Your task to perform on an android device: find which apps use the phone's location Image 0: 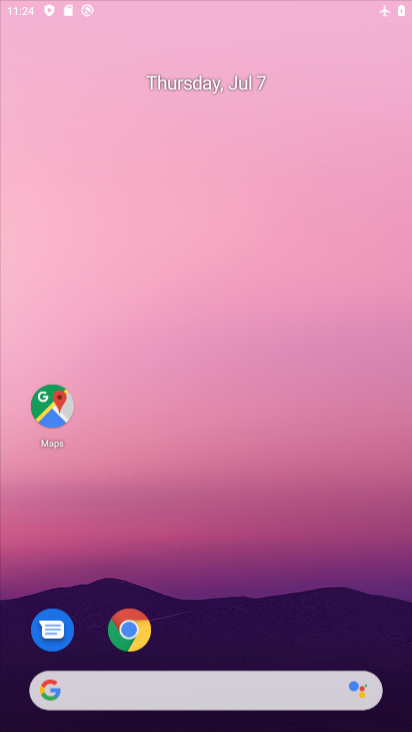
Step 0: click (171, 32)
Your task to perform on an android device: find which apps use the phone's location Image 1: 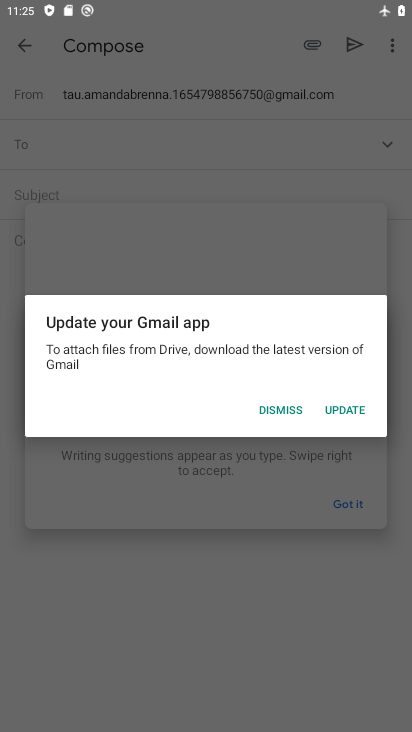
Step 1: press home button
Your task to perform on an android device: find which apps use the phone's location Image 2: 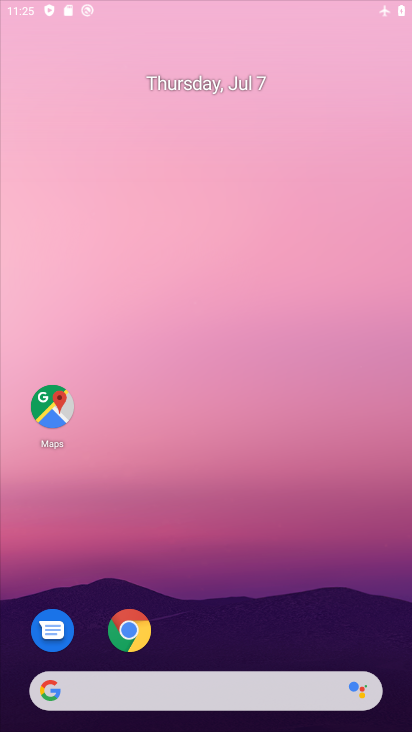
Step 2: drag from (368, 707) to (219, 44)
Your task to perform on an android device: find which apps use the phone's location Image 3: 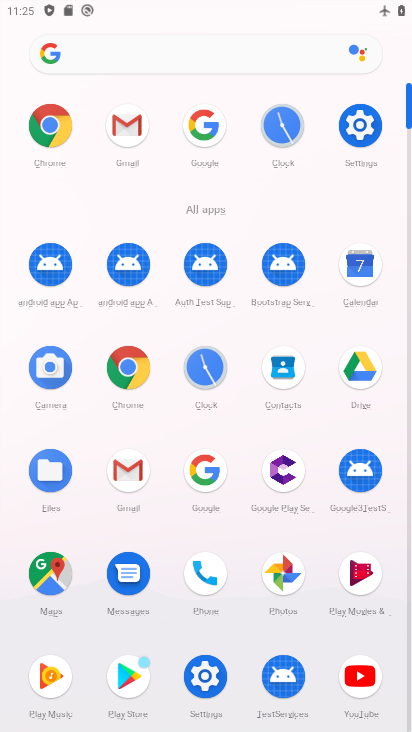
Step 3: click (370, 135)
Your task to perform on an android device: find which apps use the phone's location Image 4: 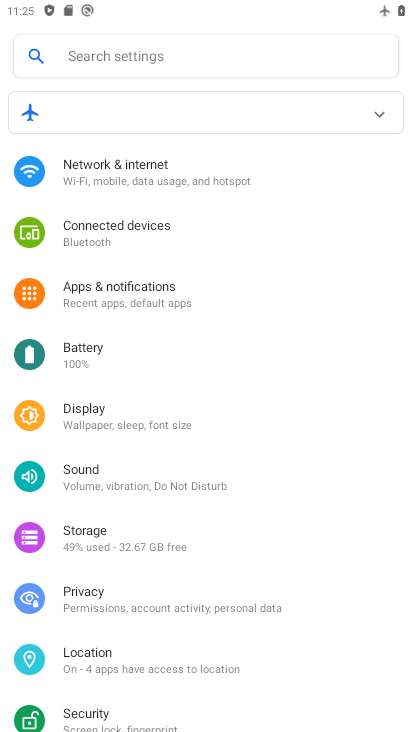
Step 4: click (88, 659)
Your task to perform on an android device: find which apps use the phone's location Image 5: 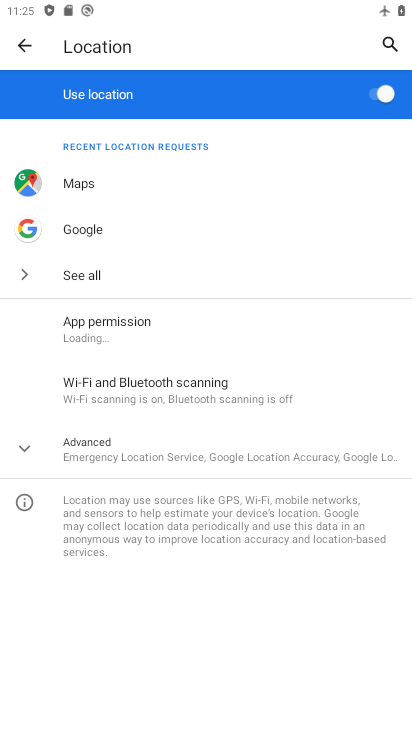
Step 5: click (103, 330)
Your task to perform on an android device: find which apps use the phone's location Image 6: 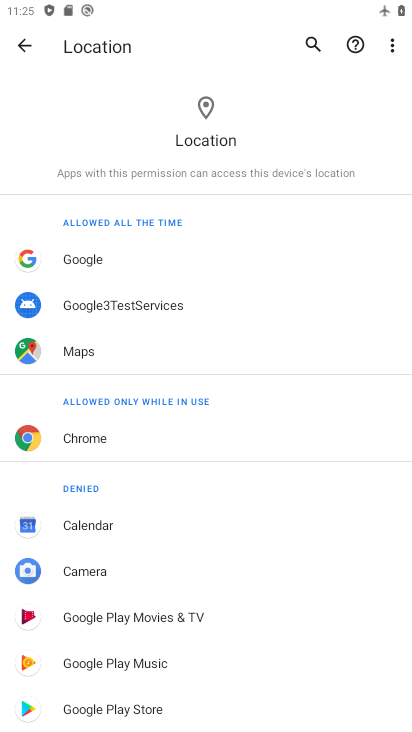
Step 6: drag from (134, 678) to (180, 374)
Your task to perform on an android device: find which apps use the phone's location Image 7: 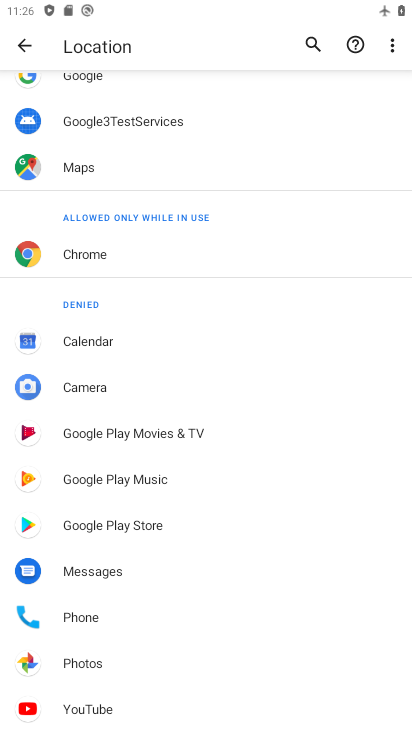
Step 7: click (98, 611)
Your task to perform on an android device: find which apps use the phone's location Image 8: 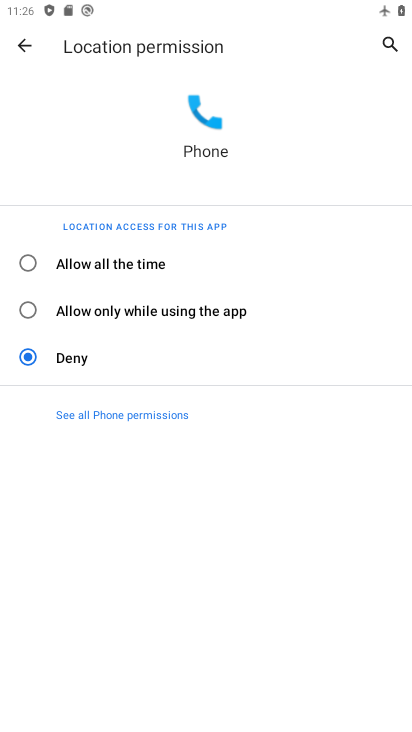
Step 8: click (33, 274)
Your task to perform on an android device: find which apps use the phone's location Image 9: 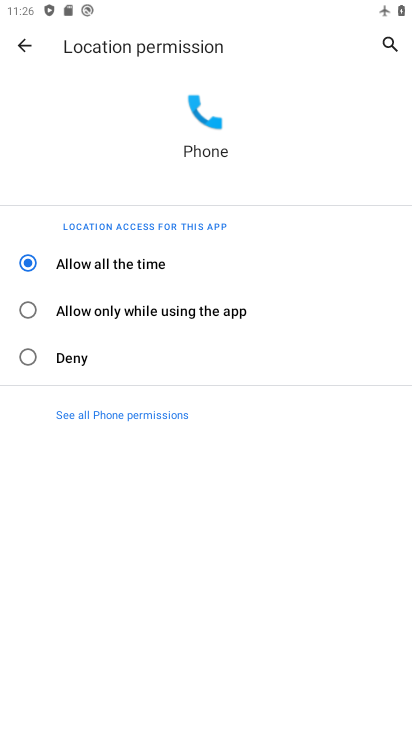
Step 9: task complete